Your task to perform on an android device: check android version Image 0: 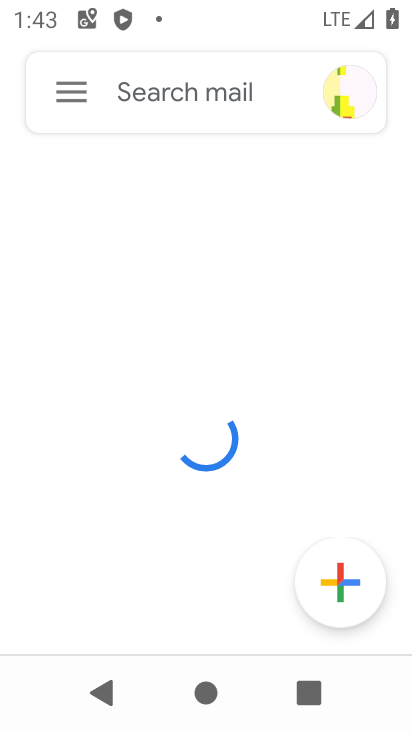
Step 0: press home button
Your task to perform on an android device: check android version Image 1: 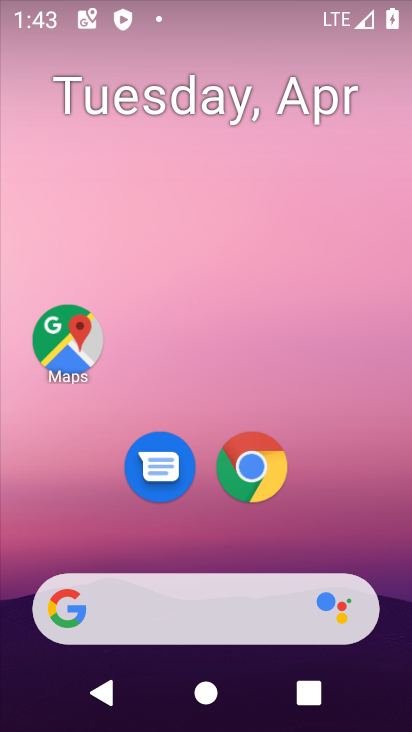
Step 1: drag from (375, 522) to (376, 135)
Your task to perform on an android device: check android version Image 2: 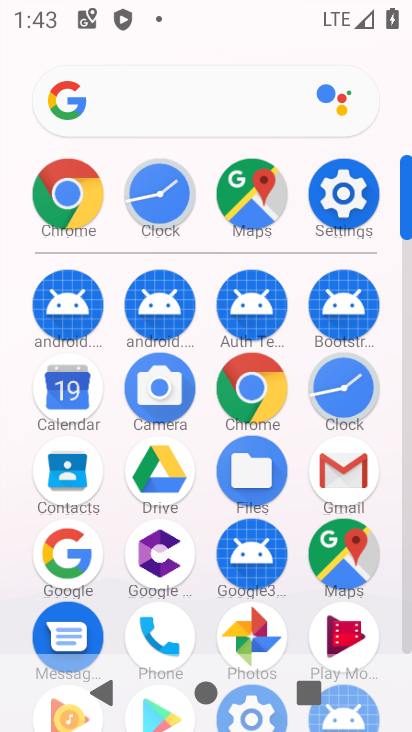
Step 2: click (342, 201)
Your task to perform on an android device: check android version Image 3: 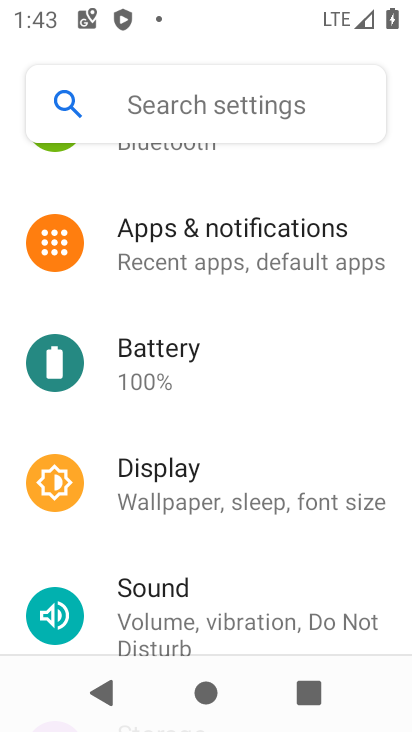
Step 3: drag from (373, 420) to (377, 291)
Your task to perform on an android device: check android version Image 4: 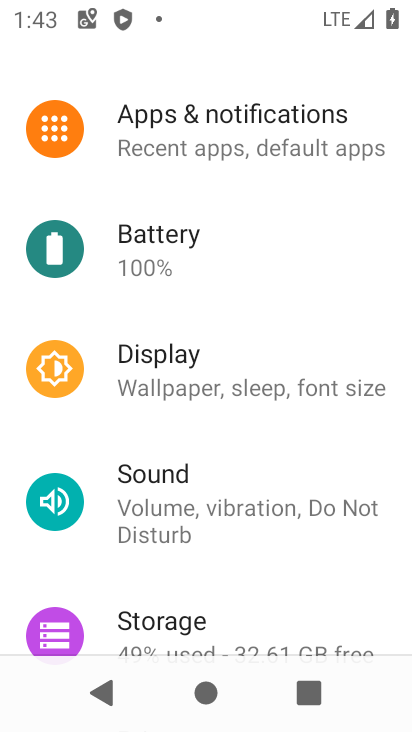
Step 4: drag from (393, 470) to (392, 303)
Your task to perform on an android device: check android version Image 5: 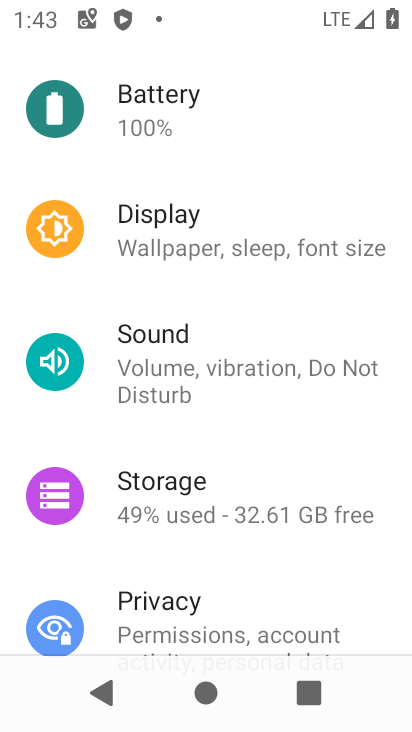
Step 5: drag from (395, 468) to (390, 311)
Your task to perform on an android device: check android version Image 6: 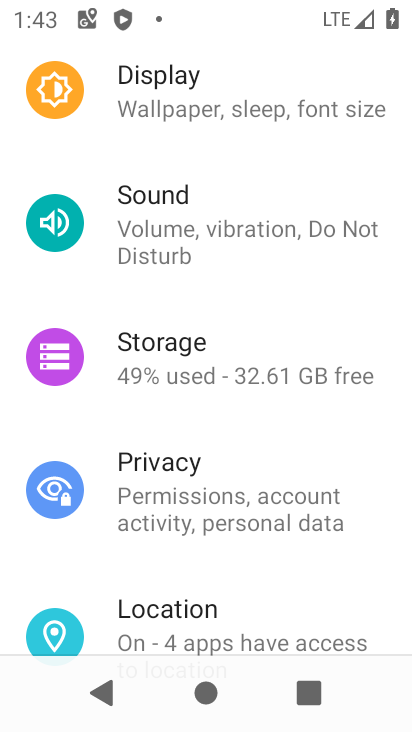
Step 6: drag from (401, 558) to (390, 401)
Your task to perform on an android device: check android version Image 7: 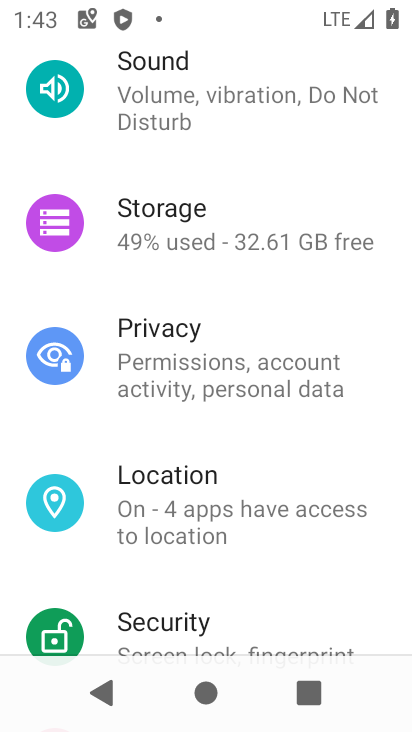
Step 7: drag from (368, 578) to (364, 421)
Your task to perform on an android device: check android version Image 8: 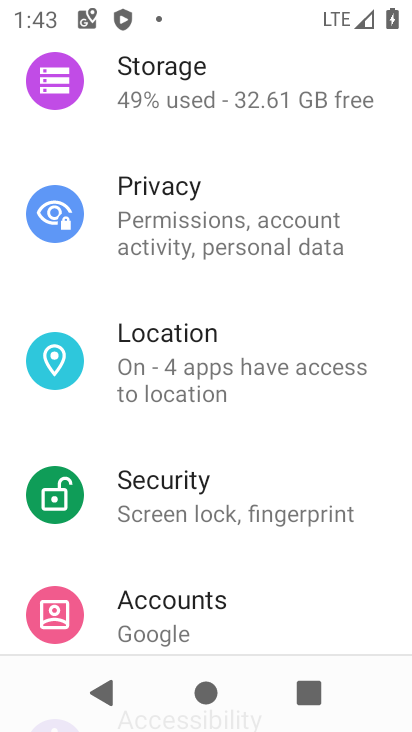
Step 8: drag from (375, 590) to (378, 391)
Your task to perform on an android device: check android version Image 9: 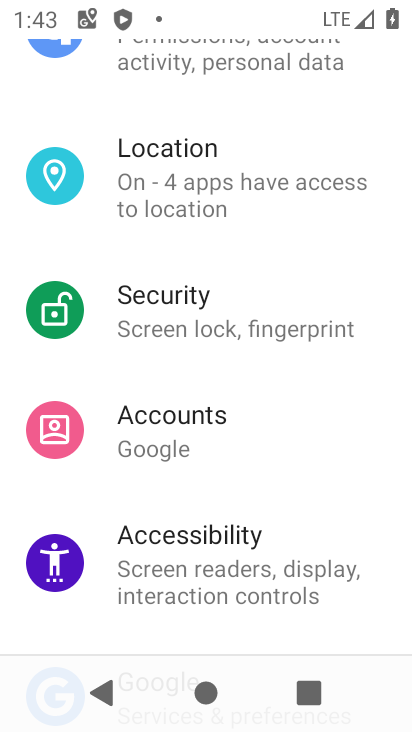
Step 9: drag from (380, 584) to (359, 418)
Your task to perform on an android device: check android version Image 10: 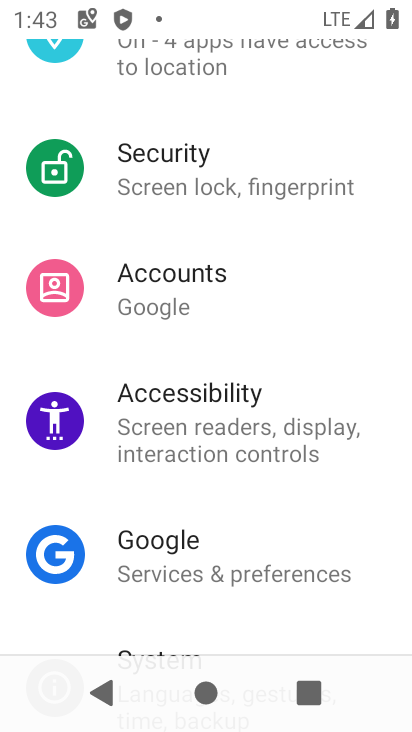
Step 10: drag from (379, 601) to (379, 431)
Your task to perform on an android device: check android version Image 11: 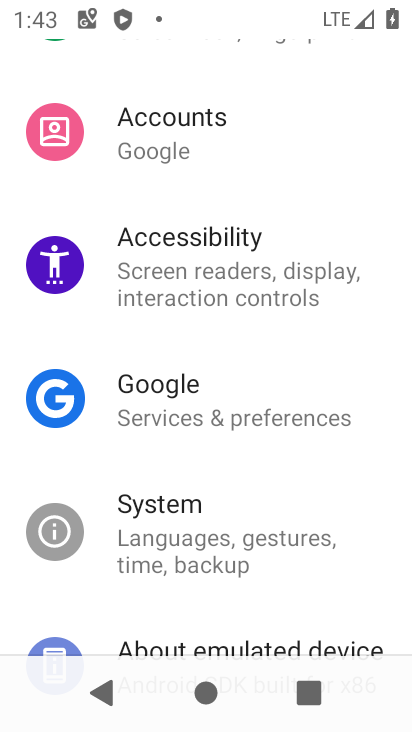
Step 11: drag from (352, 559) to (354, 427)
Your task to perform on an android device: check android version Image 12: 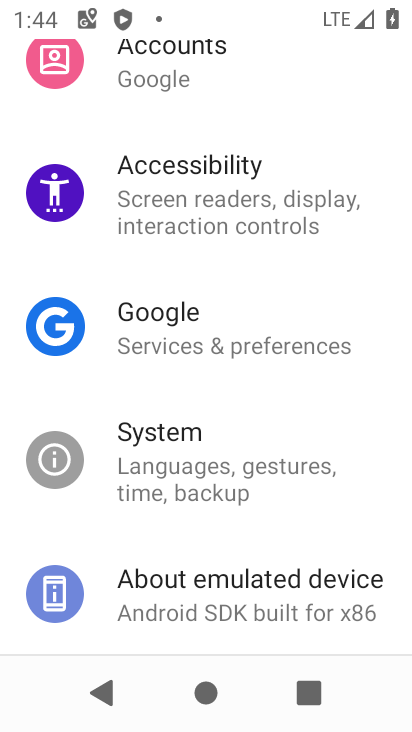
Step 12: click (190, 465)
Your task to perform on an android device: check android version Image 13: 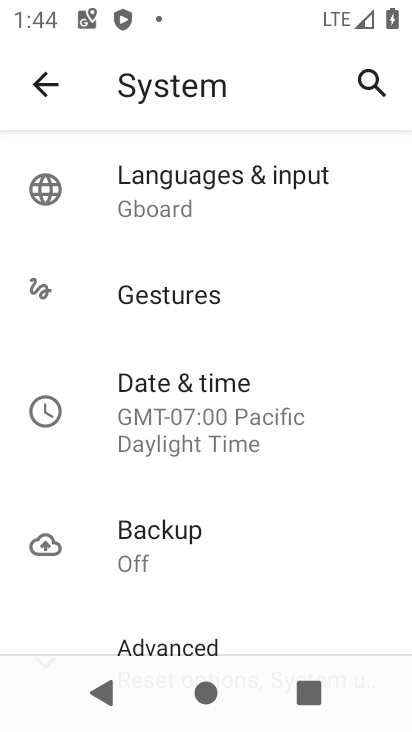
Step 13: drag from (327, 561) to (346, 395)
Your task to perform on an android device: check android version Image 14: 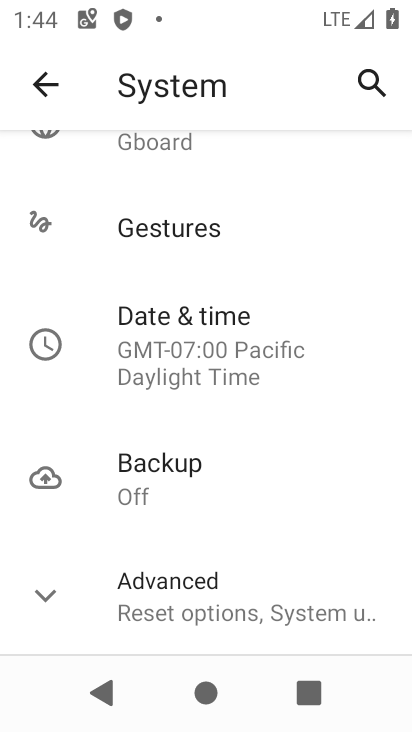
Step 14: click (229, 605)
Your task to perform on an android device: check android version Image 15: 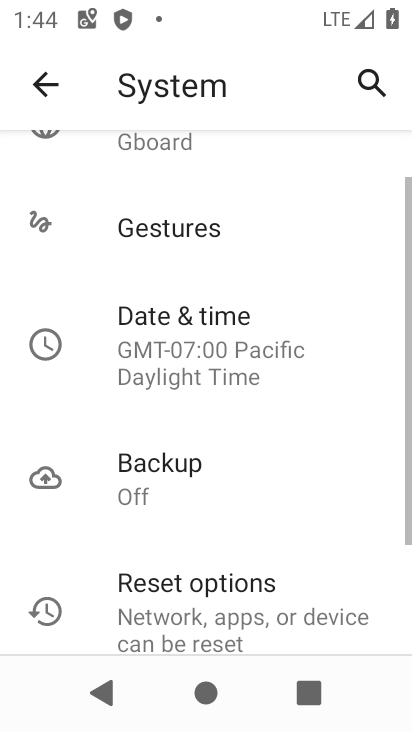
Step 15: drag from (346, 544) to (345, 382)
Your task to perform on an android device: check android version Image 16: 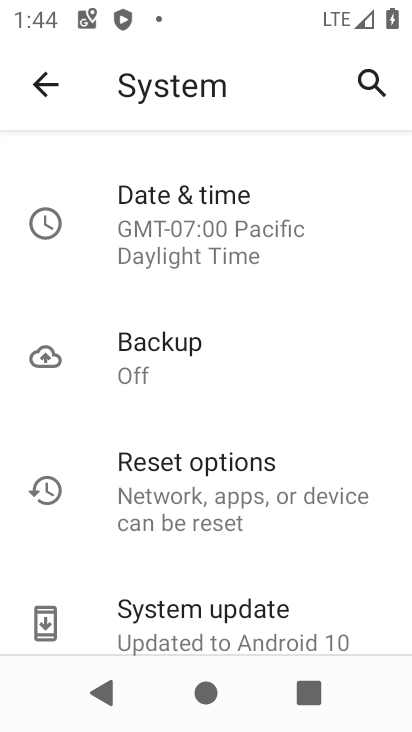
Step 16: drag from (339, 575) to (330, 435)
Your task to perform on an android device: check android version Image 17: 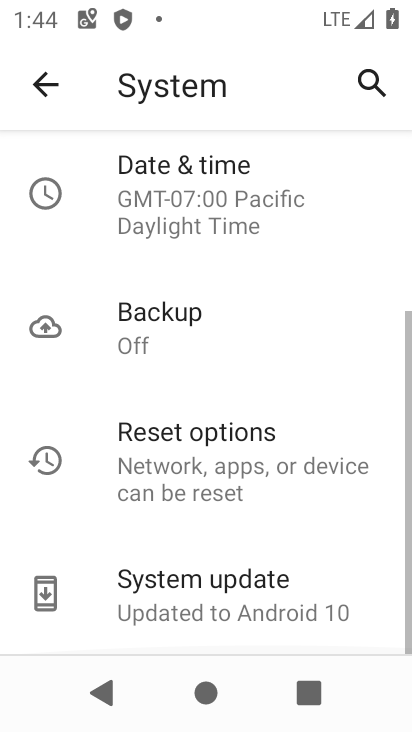
Step 17: click (245, 600)
Your task to perform on an android device: check android version Image 18: 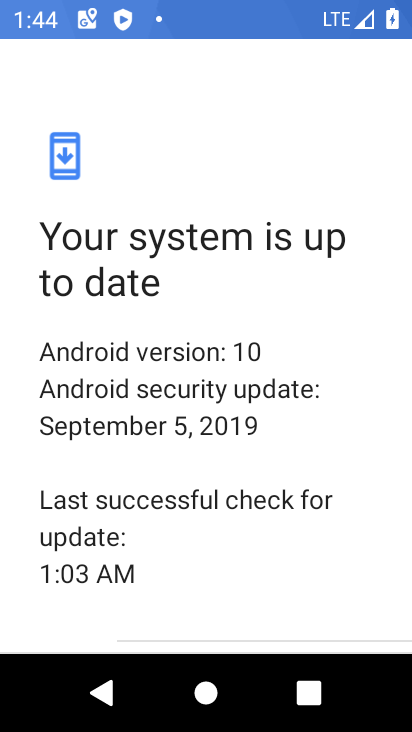
Step 18: task complete